Your task to perform on an android device: Open the map Image 0: 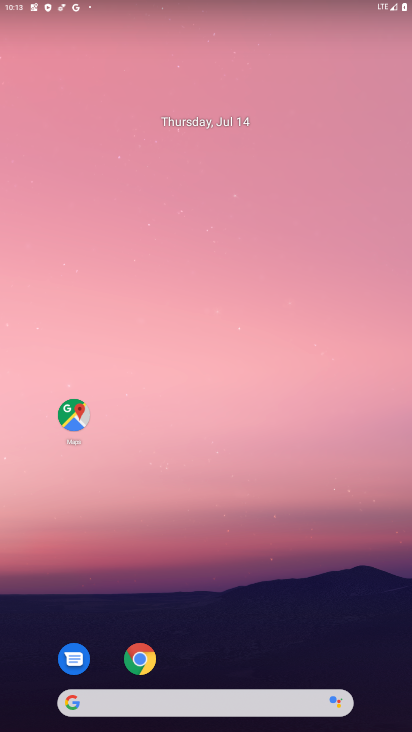
Step 0: click (68, 413)
Your task to perform on an android device: Open the map Image 1: 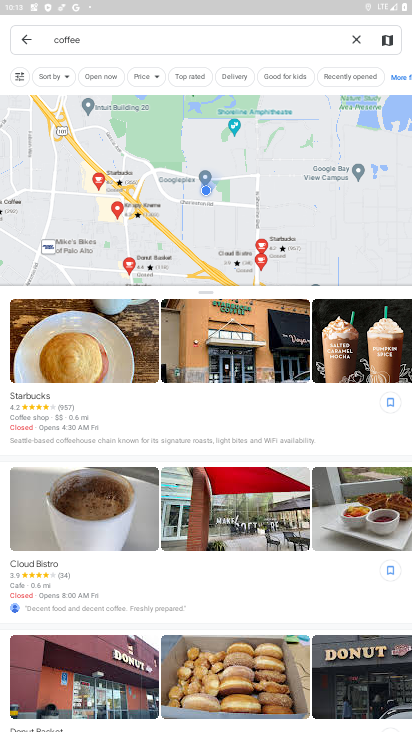
Step 1: task complete